Your task to perform on an android device: Toggle the flashlight Image 0: 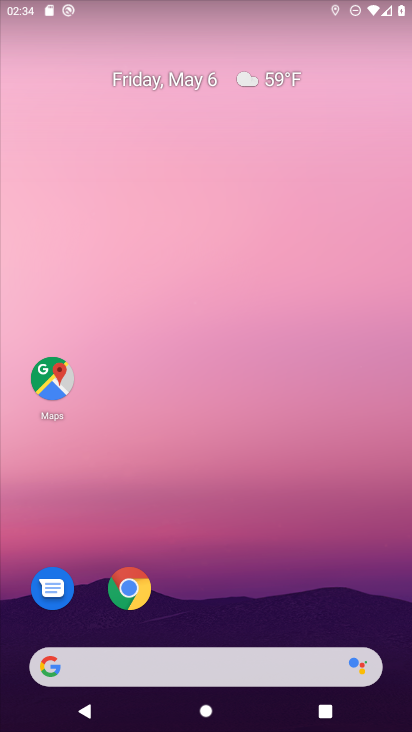
Step 0: drag from (288, 616) to (209, 71)
Your task to perform on an android device: Toggle the flashlight Image 1: 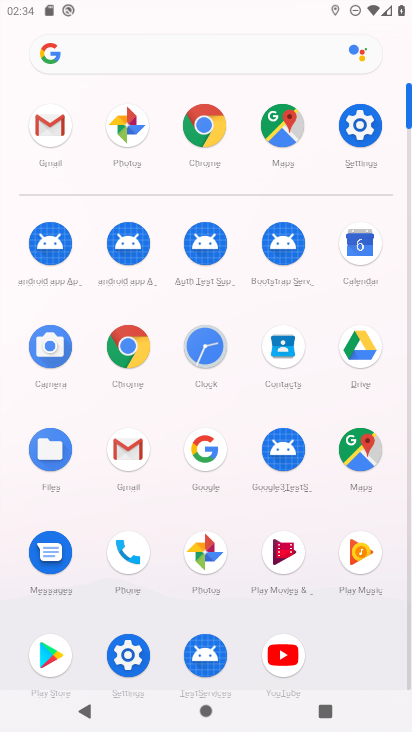
Step 1: click (369, 126)
Your task to perform on an android device: Toggle the flashlight Image 2: 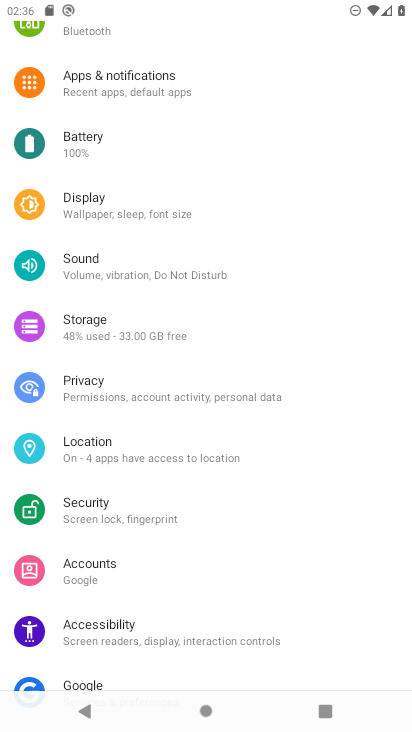
Step 2: task complete